Your task to perform on an android device: Search for sushi restaurants on Maps Image 0: 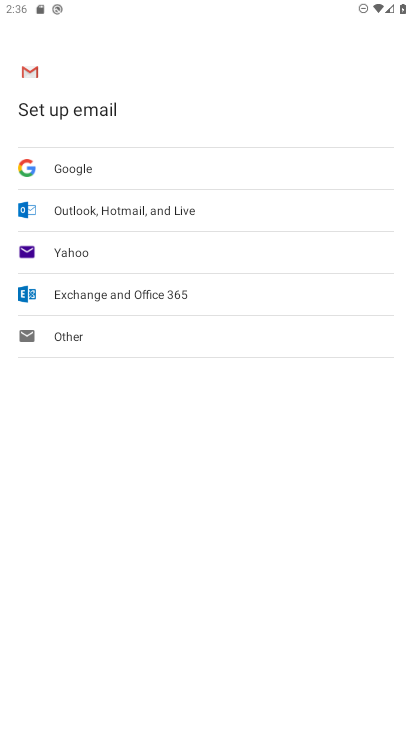
Step 0: press home button
Your task to perform on an android device: Search for sushi restaurants on Maps Image 1: 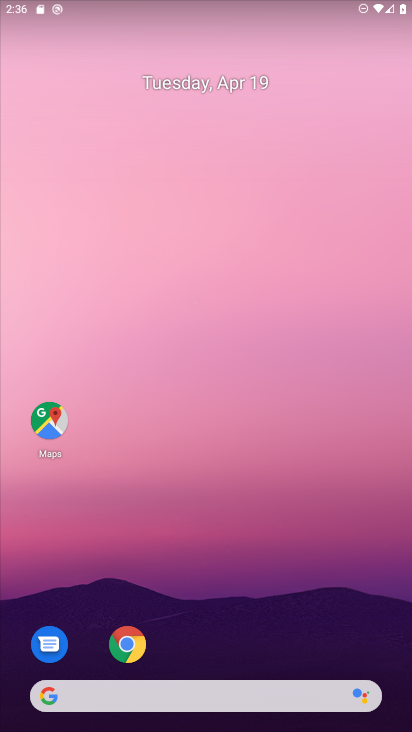
Step 1: click (48, 411)
Your task to perform on an android device: Search for sushi restaurants on Maps Image 2: 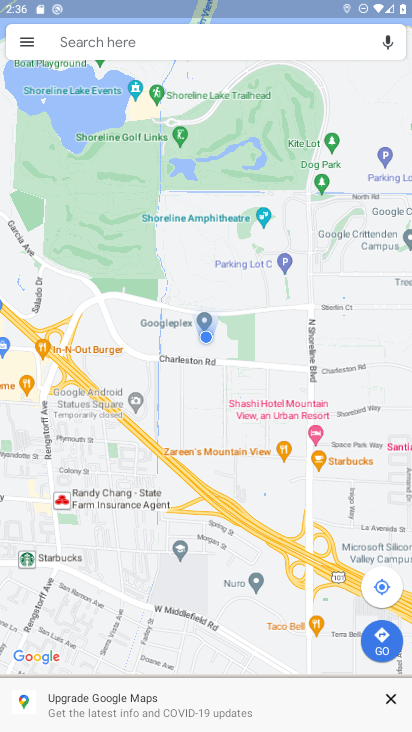
Step 2: click (254, 45)
Your task to perform on an android device: Search for sushi restaurants on Maps Image 3: 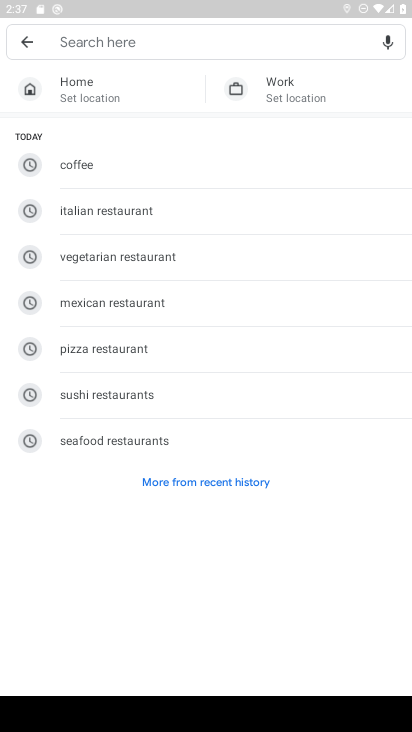
Step 3: click (94, 389)
Your task to perform on an android device: Search for sushi restaurants on Maps Image 4: 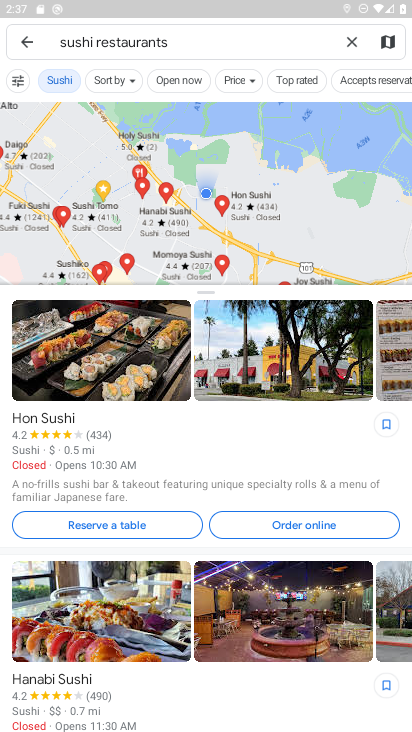
Step 4: task complete